Your task to perform on an android device: Open ESPN.com Image 0: 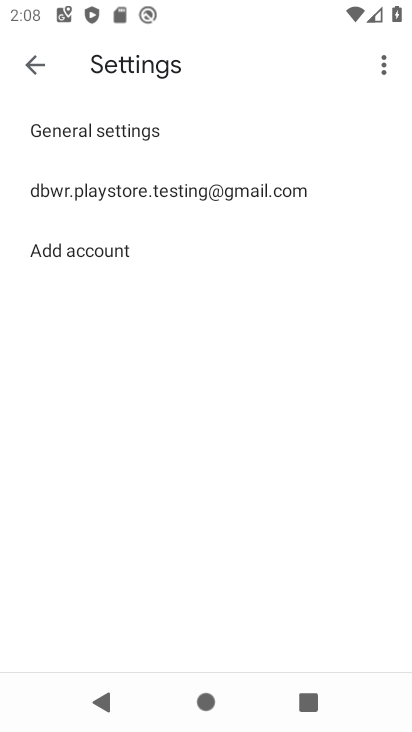
Step 0: press home button
Your task to perform on an android device: Open ESPN.com Image 1: 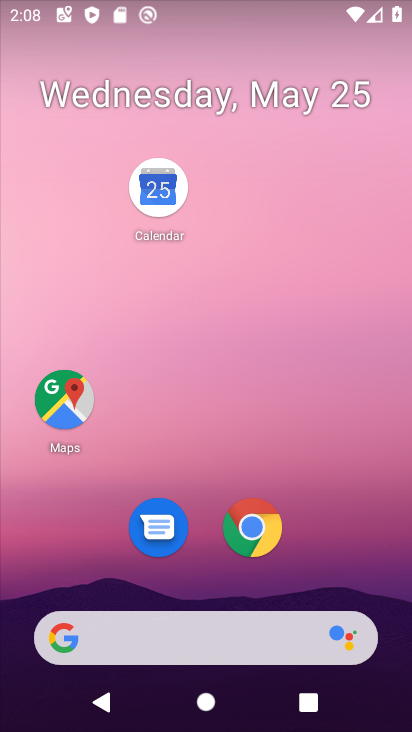
Step 1: click (249, 534)
Your task to perform on an android device: Open ESPN.com Image 2: 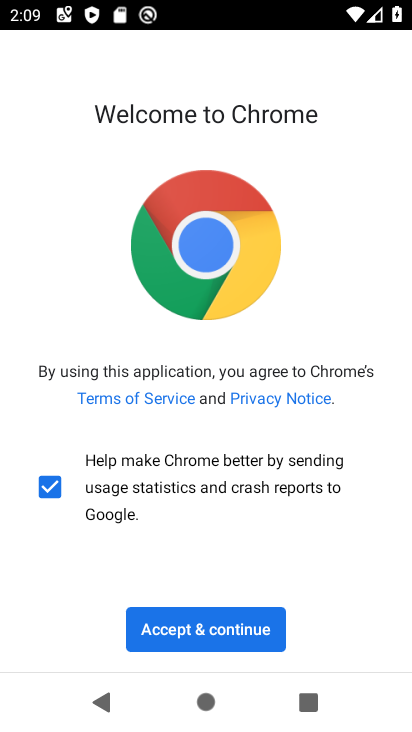
Step 2: click (205, 633)
Your task to perform on an android device: Open ESPN.com Image 3: 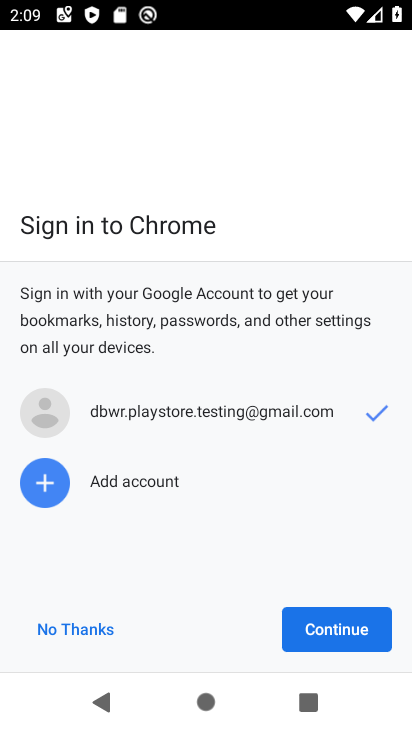
Step 3: click (310, 614)
Your task to perform on an android device: Open ESPN.com Image 4: 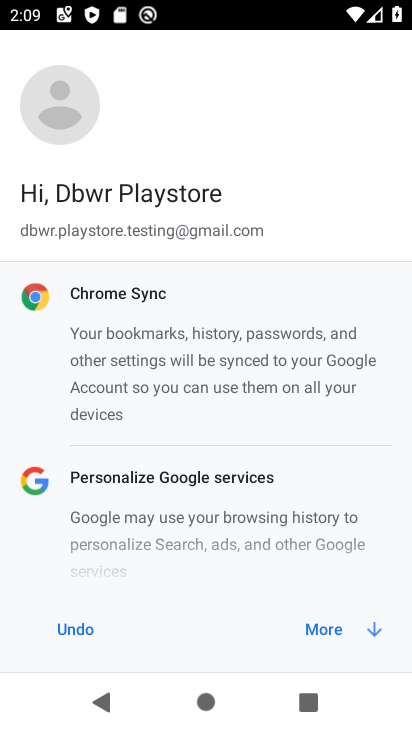
Step 4: click (312, 617)
Your task to perform on an android device: Open ESPN.com Image 5: 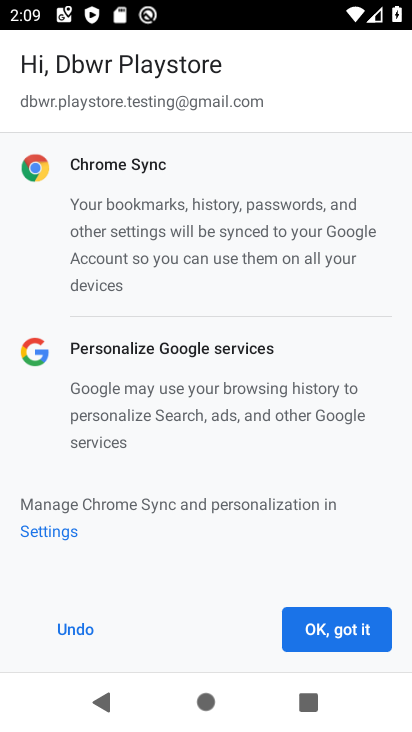
Step 5: click (312, 617)
Your task to perform on an android device: Open ESPN.com Image 6: 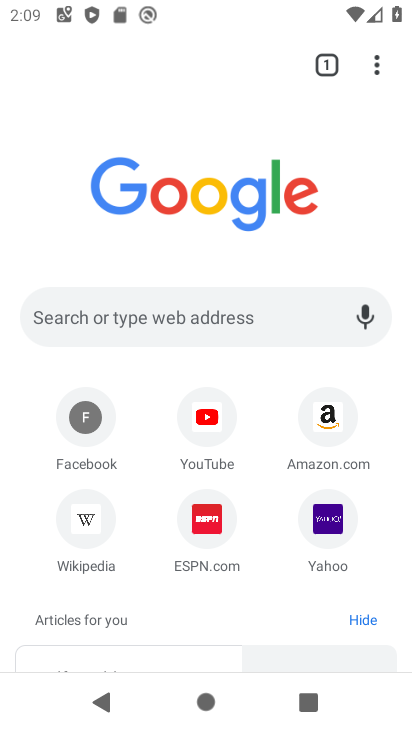
Step 6: click (185, 314)
Your task to perform on an android device: Open ESPN.com Image 7: 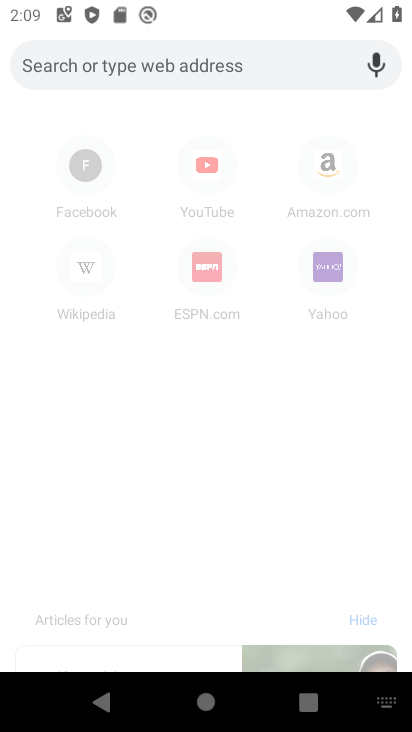
Step 7: type "espn"
Your task to perform on an android device: Open ESPN.com Image 8: 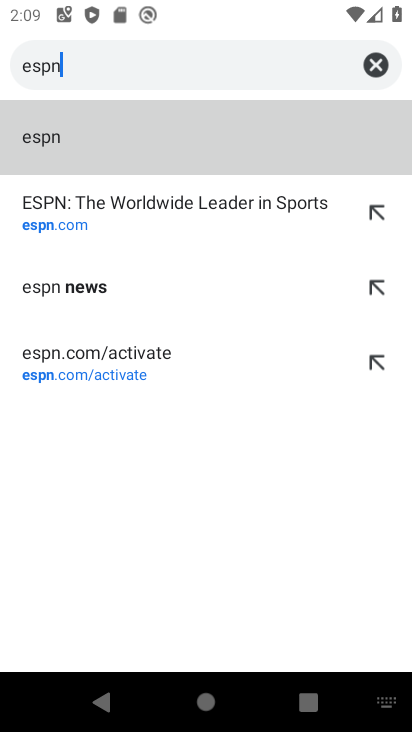
Step 8: click (110, 214)
Your task to perform on an android device: Open ESPN.com Image 9: 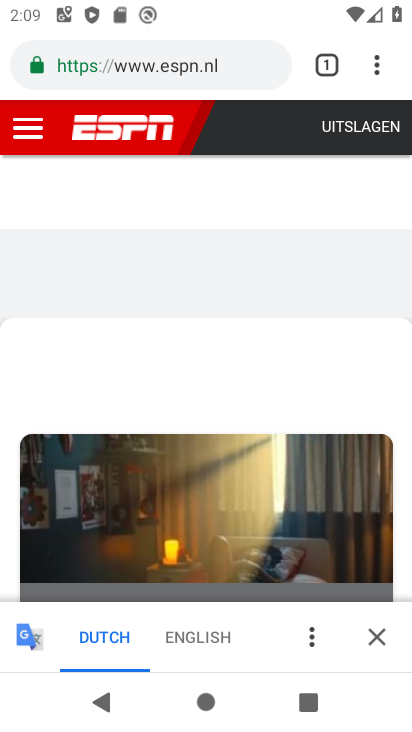
Step 9: task complete